Your task to perform on an android device: View the shopping cart on walmart. Search for dell alienware on walmart, select the first entry, and add it to the cart. Image 0: 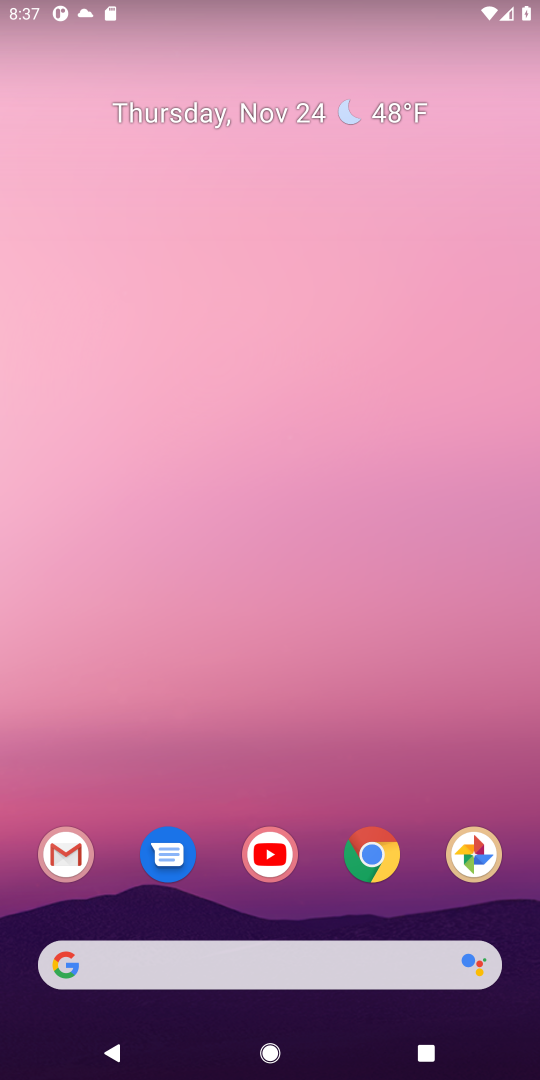
Step 0: click (376, 860)
Your task to perform on an android device: View the shopping cart on walmart. Search for dell alienware on walmart, select the first entry, and add it to the cart. Image 1: 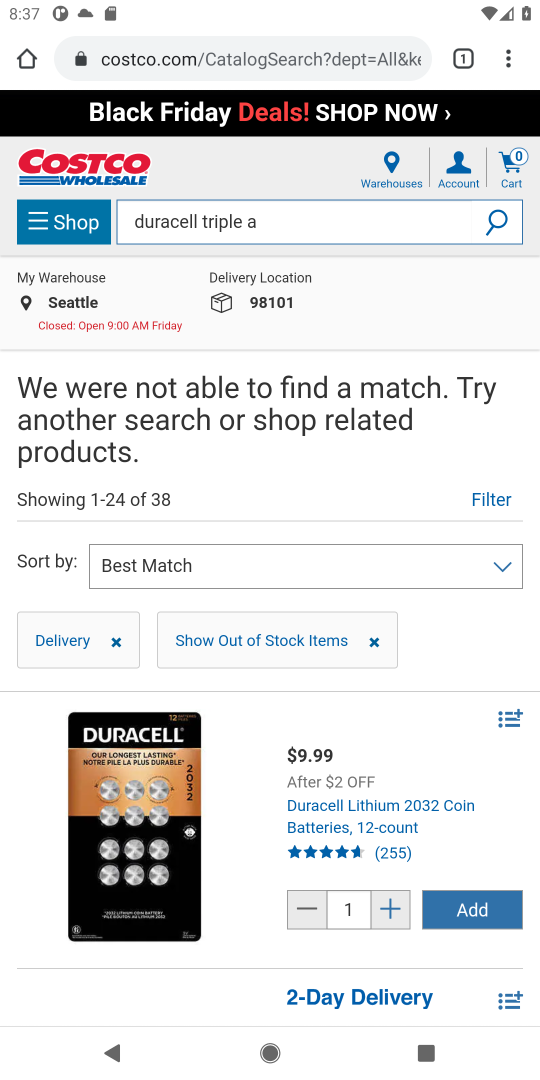
Step 1: click (222, 61)
Your task to perform on an android device: View the shopping cart on walmart. Search for dell alienware on walmart, select the first entry, and add it to the cart. Image 2: 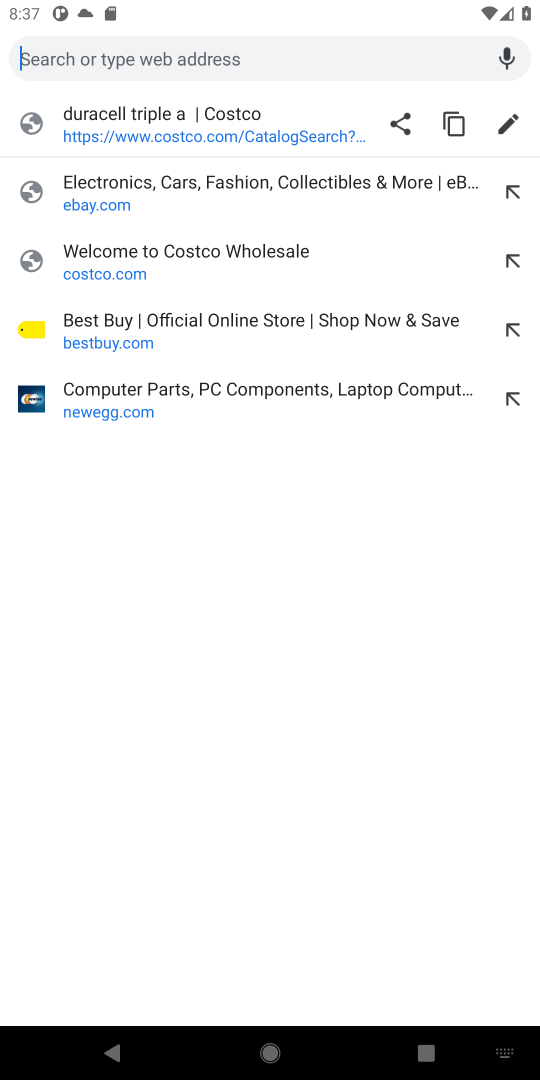
Step 2: type "walmart.com"
Your task to perform on an android device: View the shopping cart on walmart. Search for dell alienware on walmart, select the first entry, and add it to the cart. Image 3: 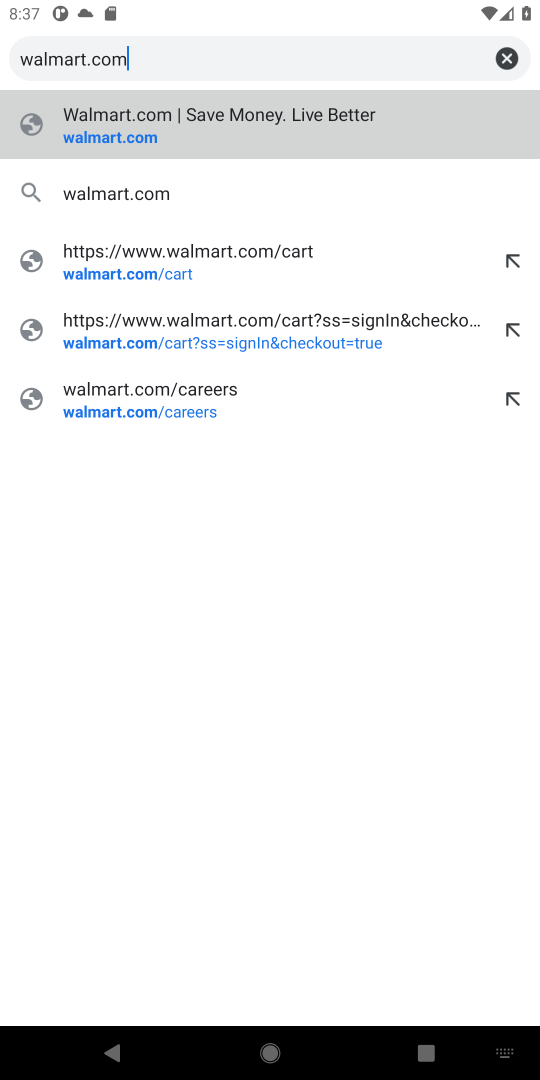
Step 3: click (97, 141)
Your task to perform on an android device: View the shopping cart on walmart. Search for dell alienware on walmart, select the first entry, and add it to the cart. Image 4: 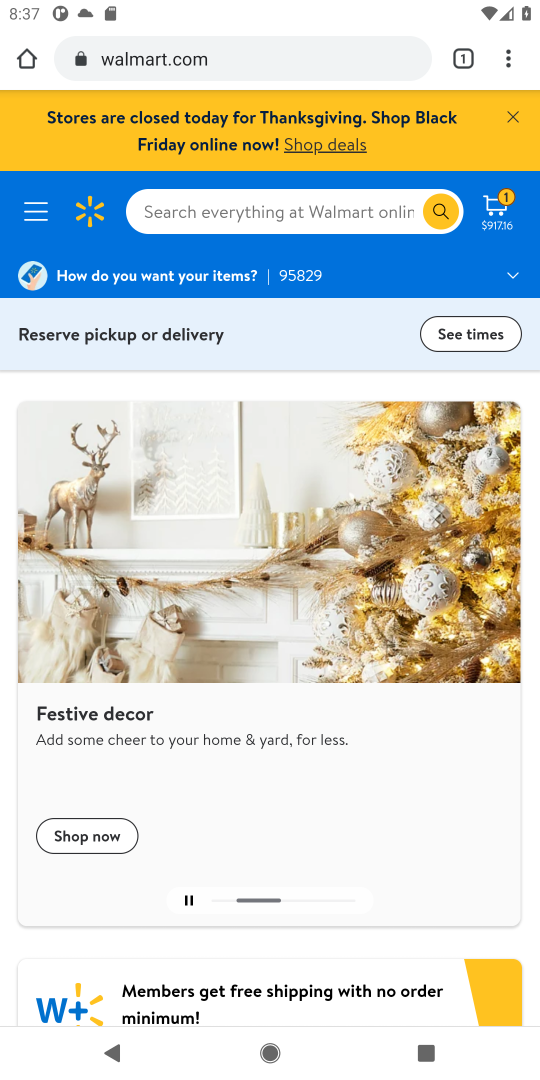
Step 4: click (504, 221)
Your task to perform on an android device: View the shopping cart on walmart. Search for dell alienware on walmart, select the first entry, and add it to the cart. Image 5: 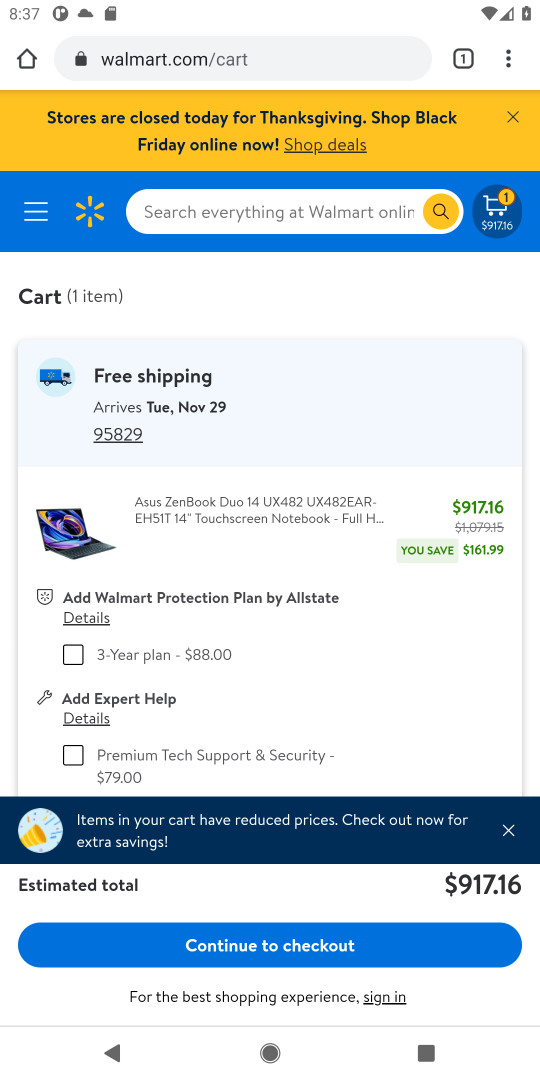
Step 5: drag from (318, 645) to (346, 489)
Your task to perform on an android device: View the shopping cart on walmart. Search for dell alienware on walmart, select the first entry, and add it to the cart. Image 6: 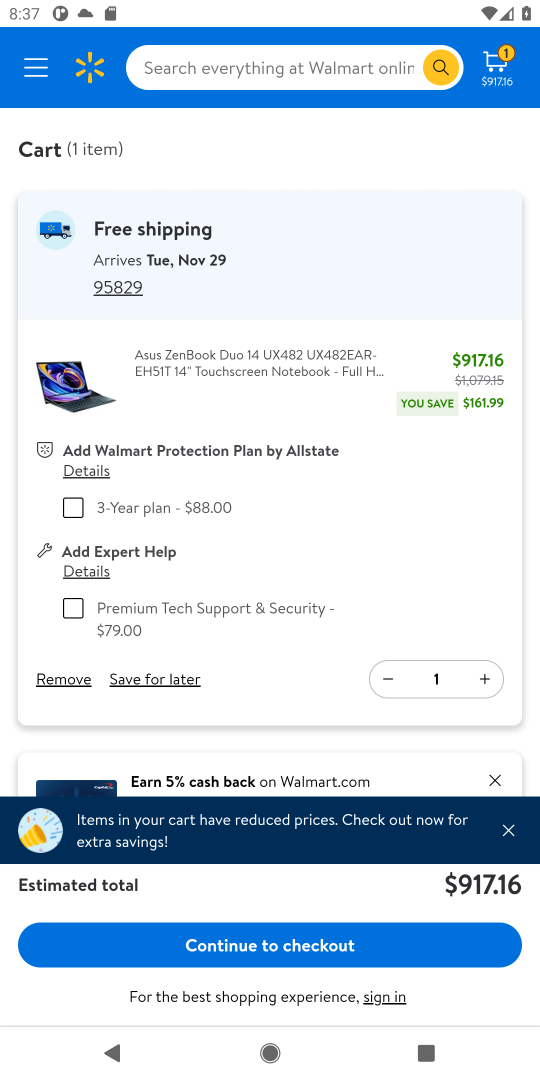
Step 6: click (310, 74)
Your task to perform on an android device: View the shopping cart on walmart. Search for dell alienware on walmart, select the first entry, and add it to the cart. Image 7: 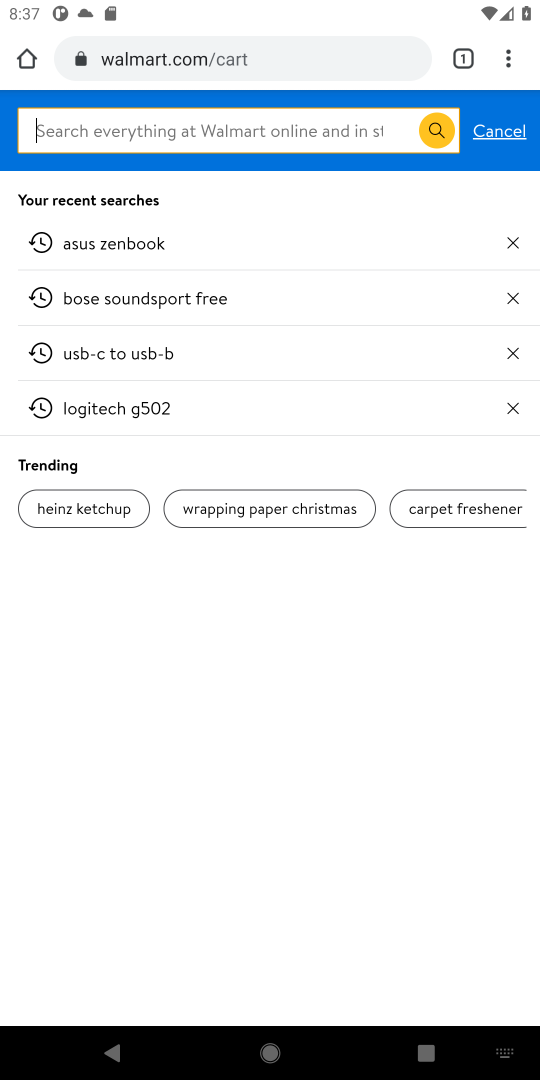
Step 7: type "dell alienware"
Your task to perform on an android device: View the shopping cart on walmart. Search for dell alienware on walmart, select the first entry, and add it to the cart. Image 8: 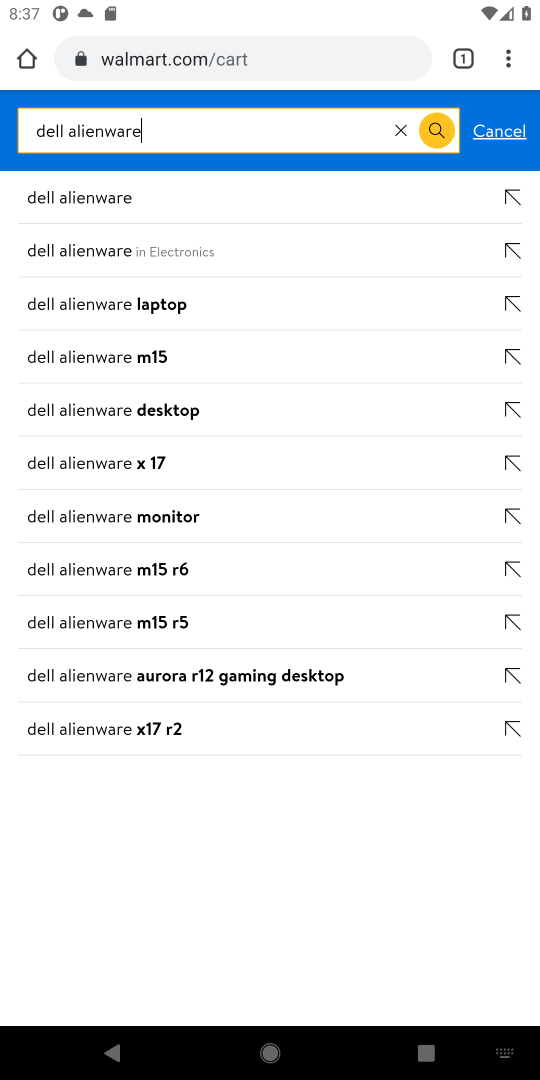
Step 8: click (75, 203)
Your task to perform on an android device: View the shopping cart on walmart. Search for dell alienware on walmart, select the first entry, and add it to the cart. Image 9: 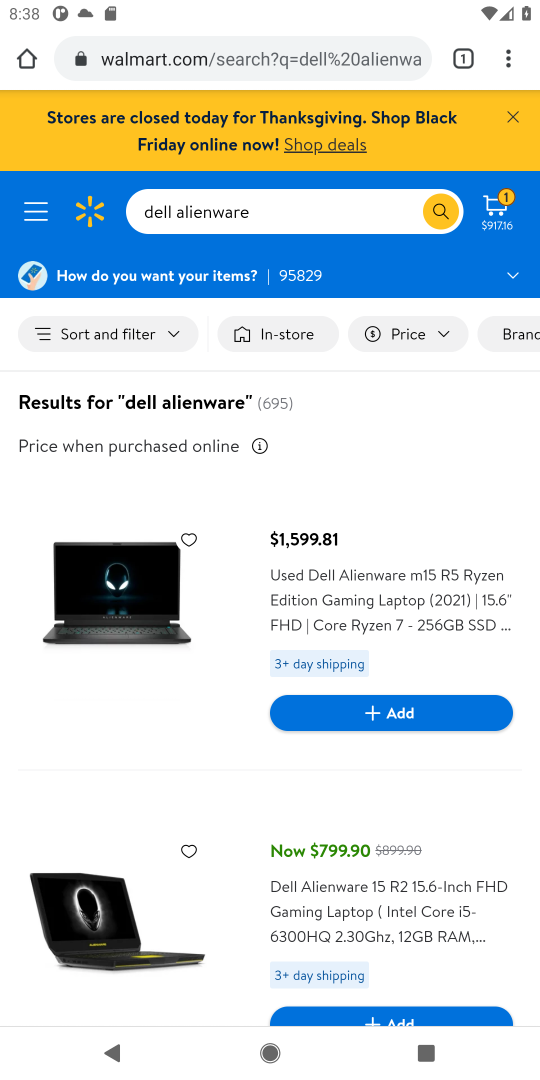
Step 9: click (377, 718)
Your task to perform on an android device: View the shopping cart on walmart. Search for dell alienware on walmart, select the first entry, and add it to the cart. Image 10: 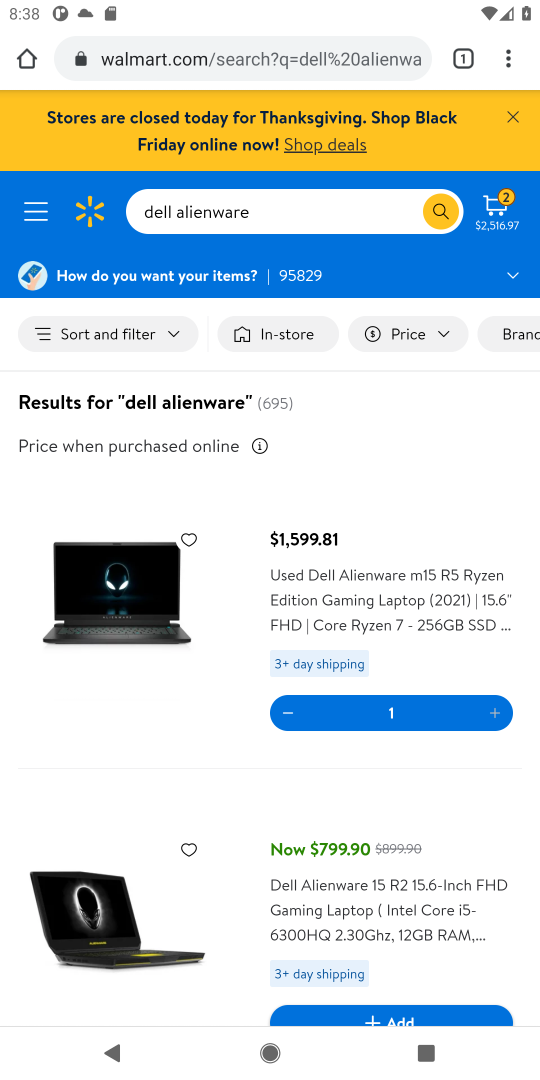
Step 10: task complete